Your task to perform on an android device: Open the calendar app, open the side menu, and click the "Day" option Image 0: 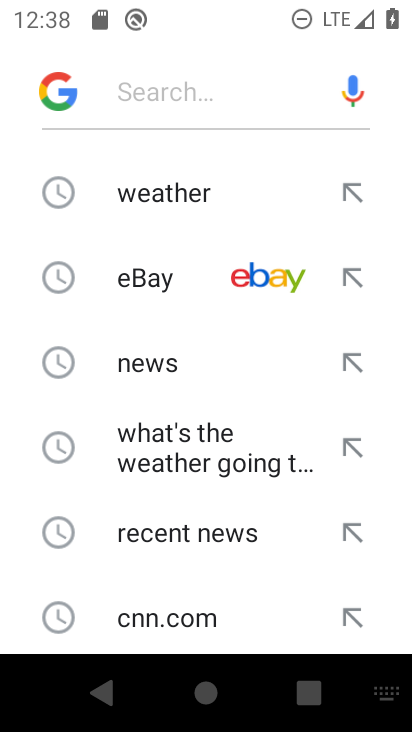
Step 0: press home button
Your task to perform on an android device: Open the calendar app, open the side menu, and click the "Day" option Image 1: 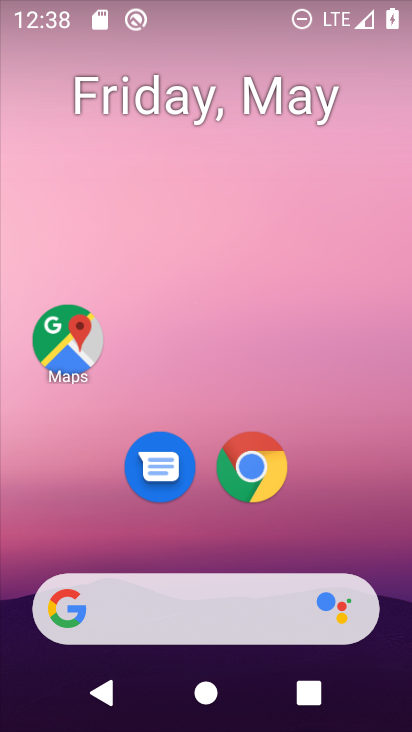
Step 1: drag from (268, 646) to (320, 101)
Your task to perform on an android device: Open the calendar app, open the side menu, and click the "Day" option Image 2: 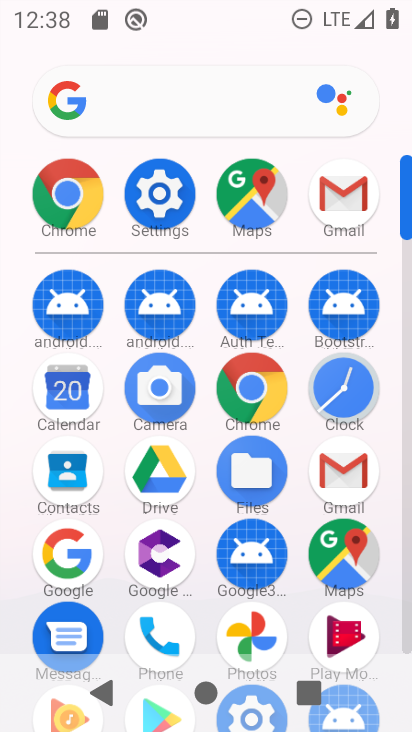
Step 2: click (67, 398)
Your task to perform on an android device: Open the calendar app, open the side menu, and click the "Day" option Image 3: 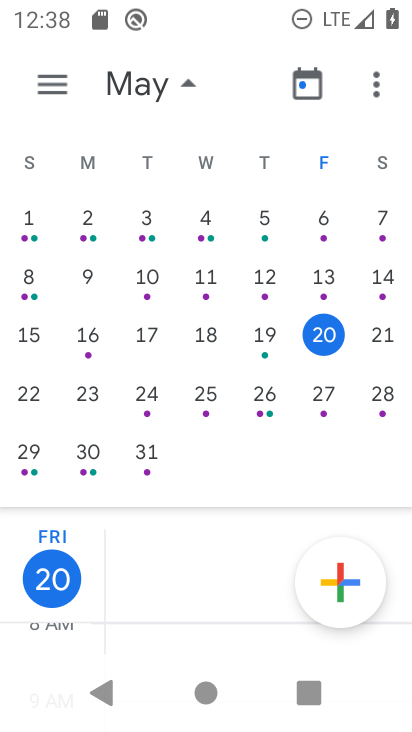
Step 3: click (57, 80)
Your task to perform on an android device: Open the calendar app, open the side menu, and click the "Day" option Image 4: 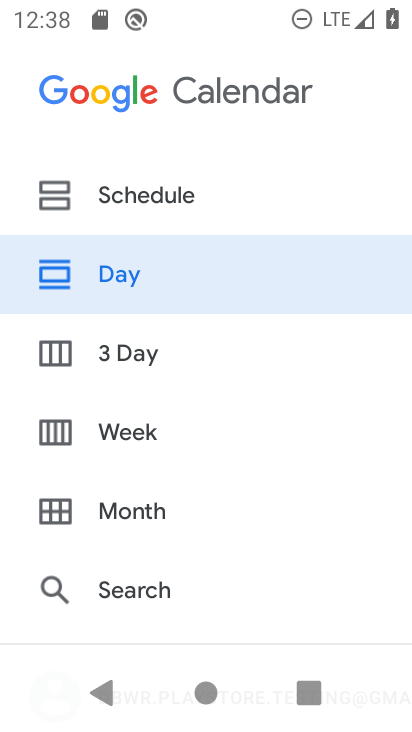
Step 4: click (185, 277)
Your task to perform on an android device: Open the calendar app, open the side menu, and click the "Day" option Image 5: 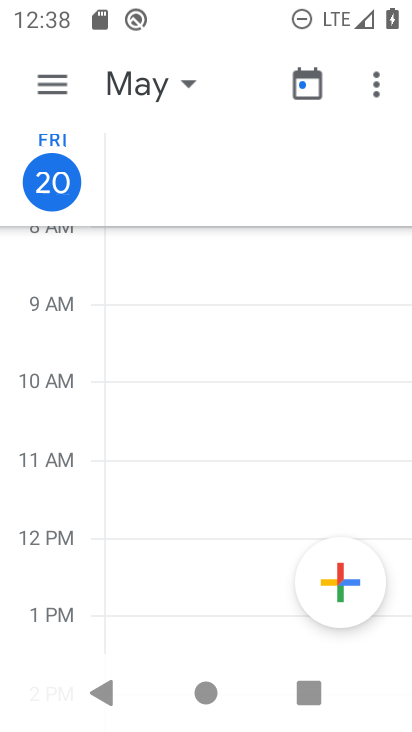
Step 5: task complete